Your task to perform on an android device: Search for hotels in Seattle Image 0: 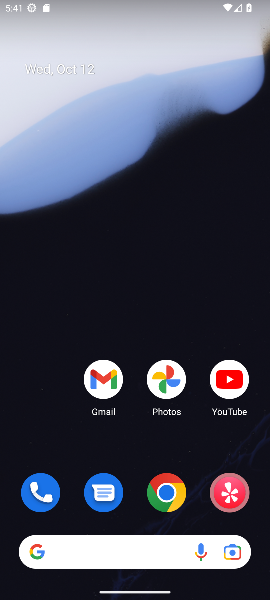
Step 0: click (171, 495)
Your task to perform on an android device: Search for hotels in Seattle Image 1: 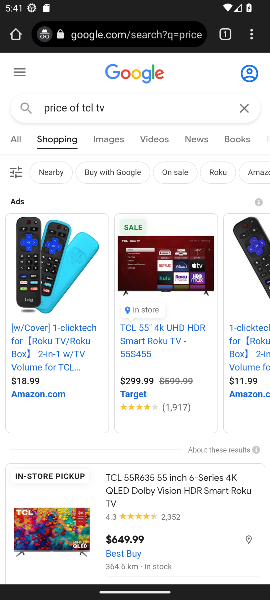
Step 1: click (119, 37)
Your task to perform on an android device: Search for hotels in Seattle Image 2: 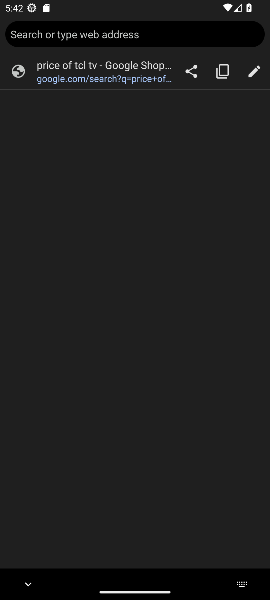
Step 2: type "hotels in Seattle"
Your task to perform on an android device: Search for hotels in Seattle Image 3: 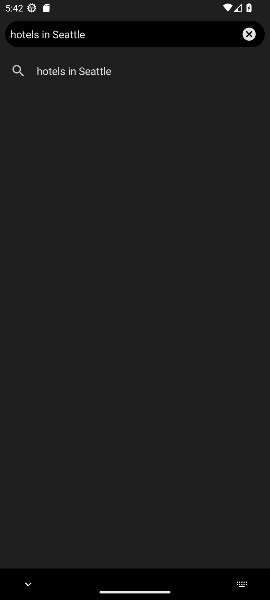
Step 3: click (81, 70)
Your task to perform on an android device: Search for hotels in Seattle Image 4: 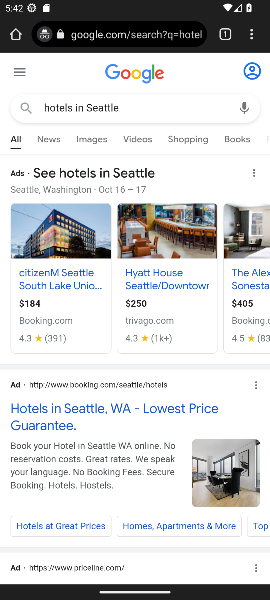
Step 4: task complete